Your task to perform on an android device: turn on improve location accuracy Image 0: 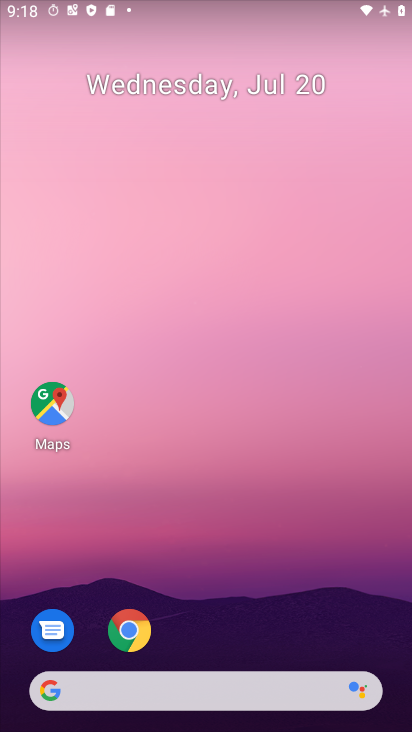
Step 0: drag from (214, 702) to (250, 101)
Your task to perform on an android device: turn on improve location accuracy Image 1: 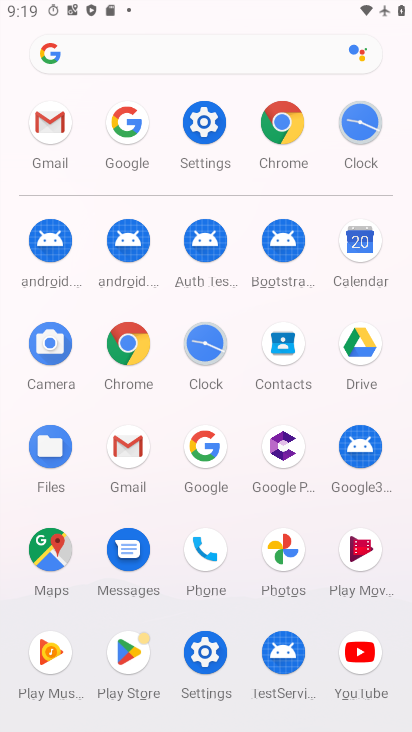
Step 1: click (196, 131)
Your task to perform on an android device: turn on improve location accuracy Image 2: 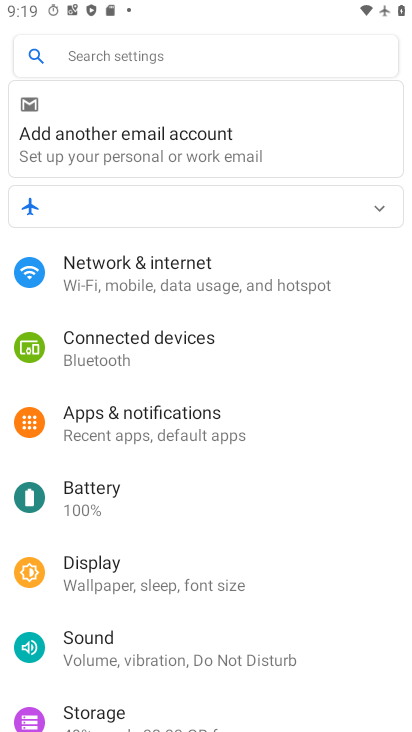
Step 2: drag from (141, 556) to (129, 364)
Your task to perform on an android device: turn on improve location accuracy Image 3: 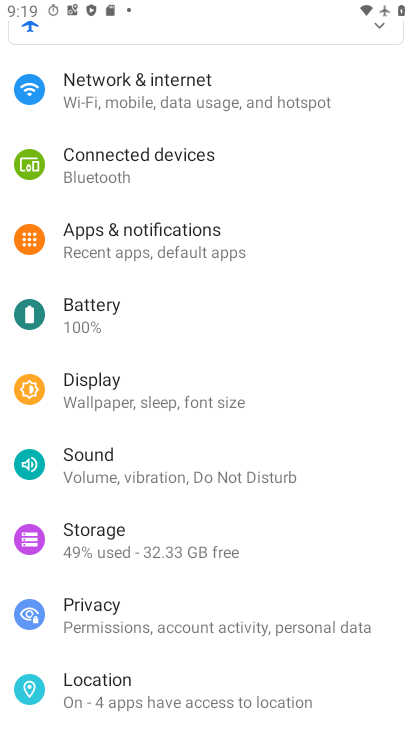
Step 3: click (142, 684)
Your task to perform on an android device: turn on improve location accuracy Image 4: 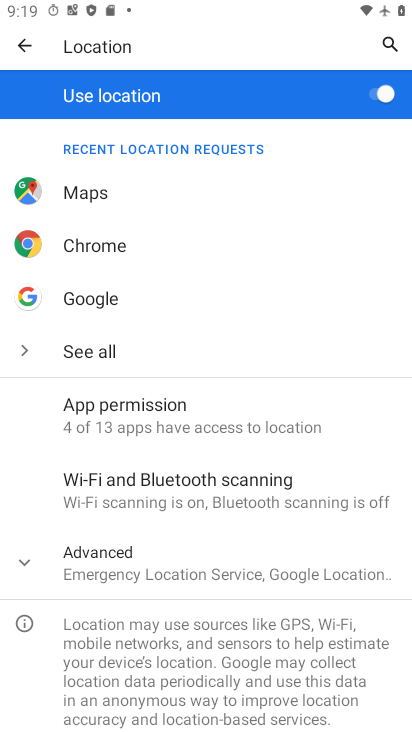
Step 4: click (168, 567)
Your task to perform on an android device: turn on improve location accuracy Image 5: 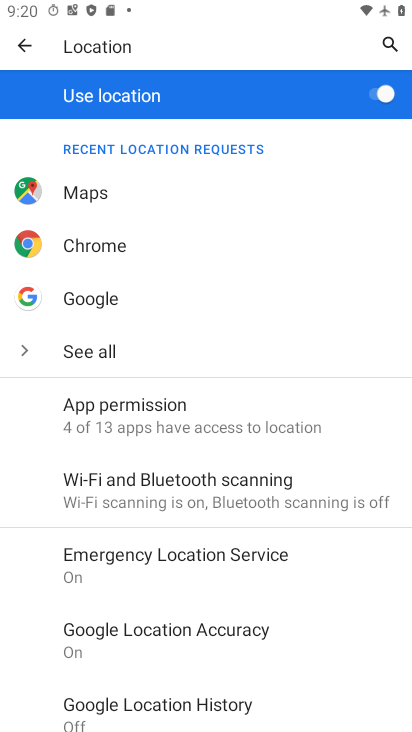
Step 5: click (210, 633)
Your task to perform on an android device: turn on improve location accuracy Image 6: 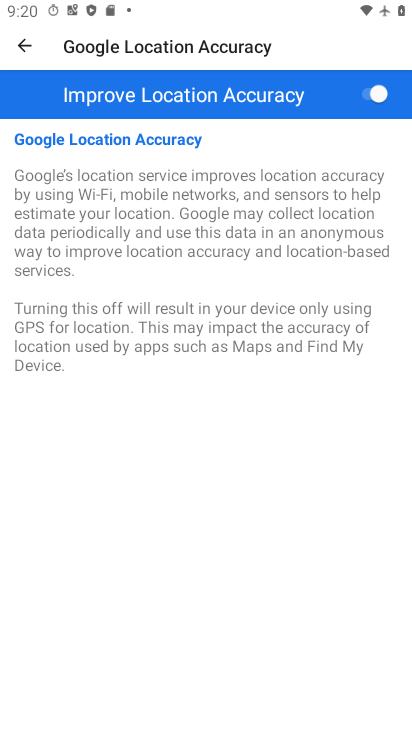
Step 6: task complete